Your task to perform on an android device: Do I have any events today? Image 0: 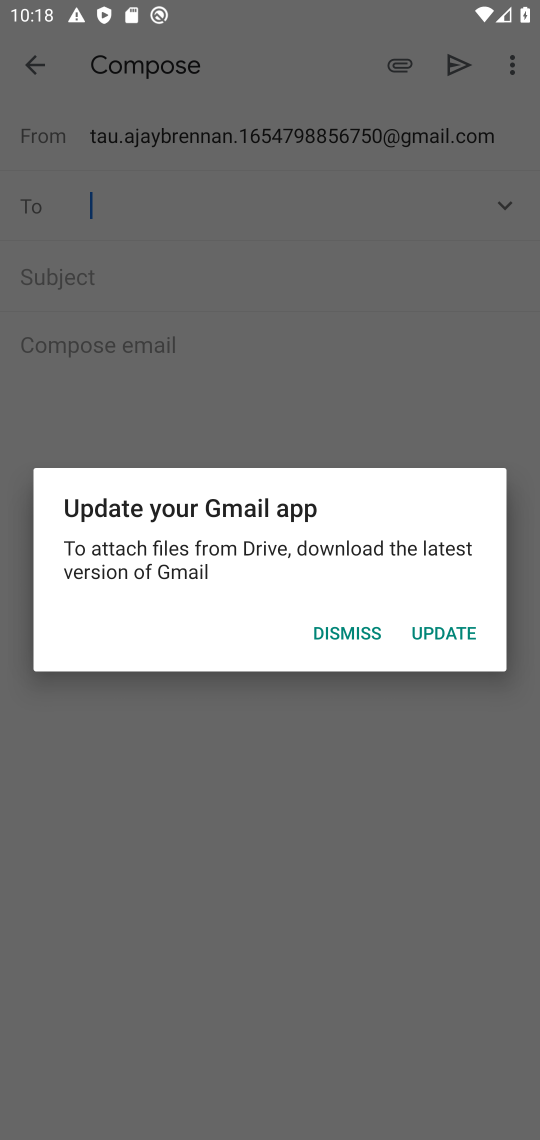
Step 0: click (354, 630)
Your task to perform on an android device: Do I have any events today? Image 1: 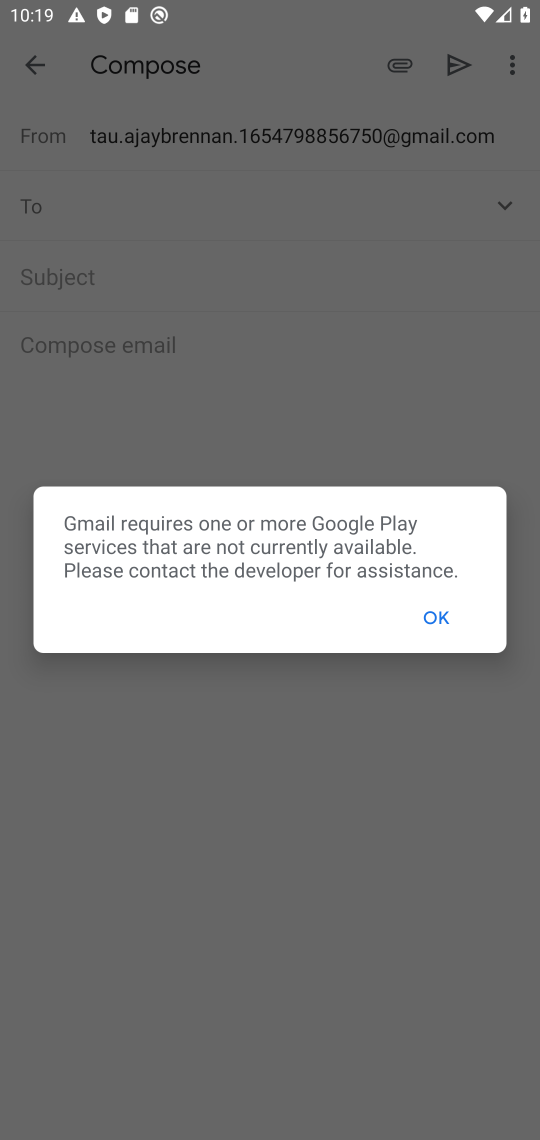
Step 1: click (442, 622)
Your task to perform on an android device: Do I have any events today? Image 2: 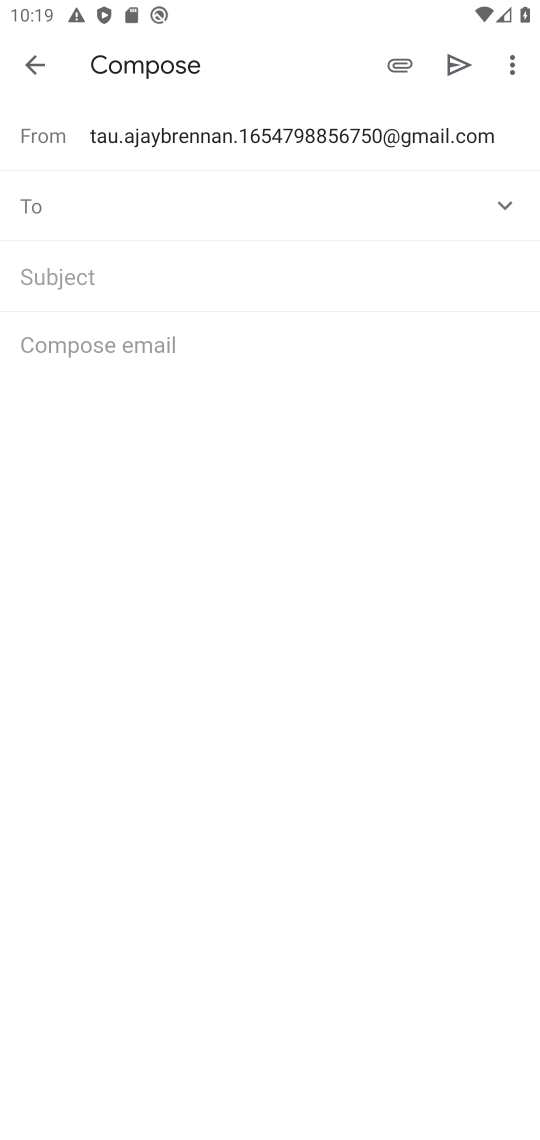
Step 2: task complete